Your task to perform on an android device: search for starred emails in the gmail app Image 0: 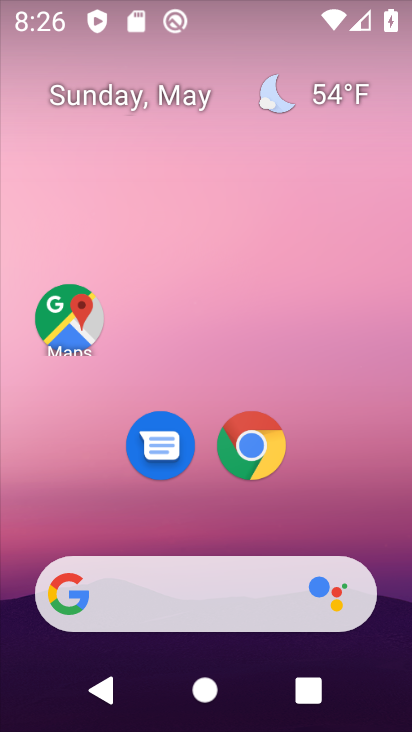
Step 0: drag from (387, 521) to (273, 41)
Your task to perform on an android device: search for starred emails in the gmail app Image 1: 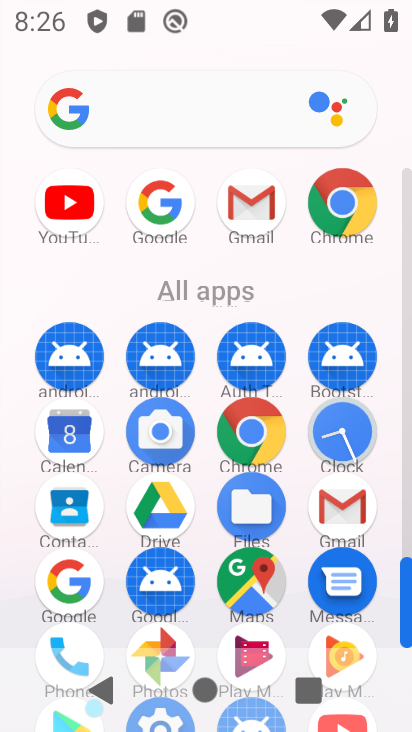
Step 1: click (260, 207)
Your task to perform on an android device: search for starred emails in the gmail app Image 2: 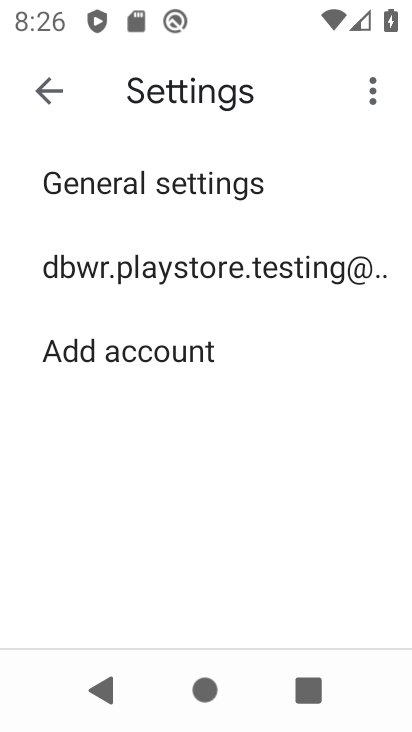
Step 2: click (54, 84)
Your task to perform on an android device: search for starred emails in the gmail app Image 3: 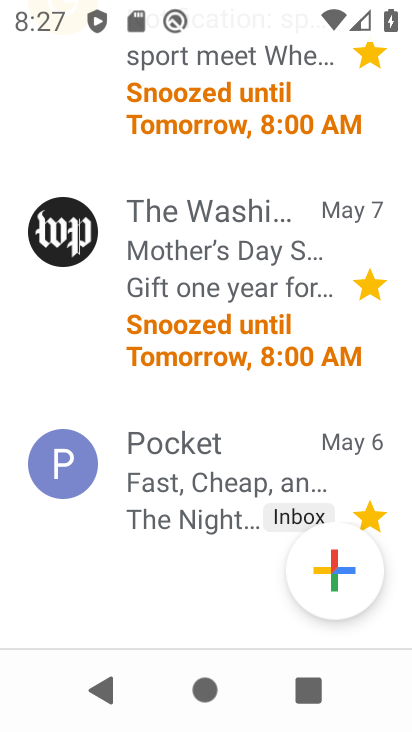
Step 3: drag from (223, 151) to (265, 731)
Your task to perform on an android device: search for starred emails in the gmail app Image 4: 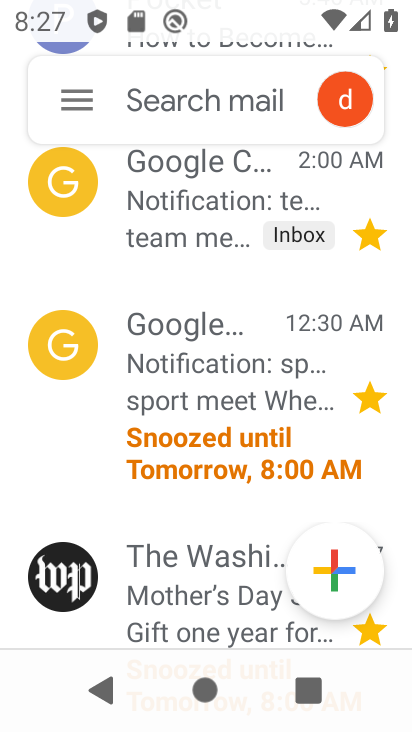
Step 4: click (86, 101)
Your task to perform on an android device: search for starred emails in the gmail app Image 5: 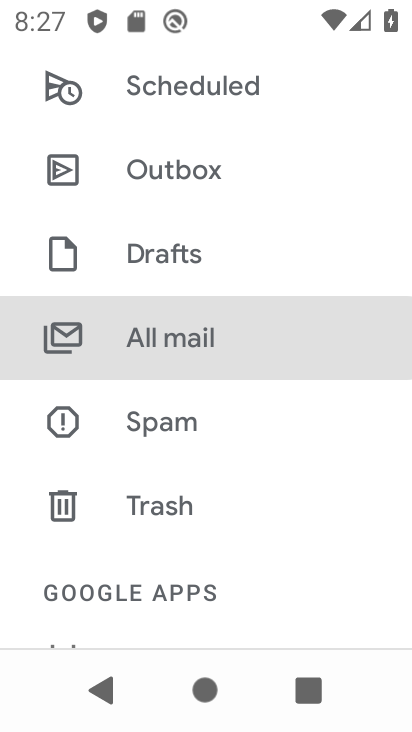
Step 5: drag from (284, 178) to (313, 563)
Your task to perform on an android device: search for starred emails in the gmail app Image 6: 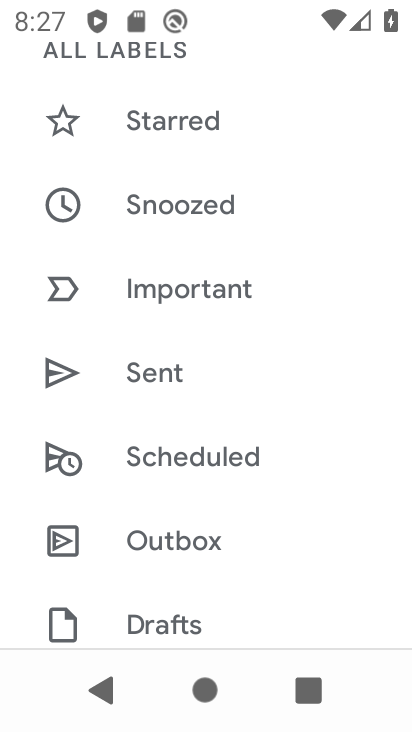
Step 6: click (271, 126)
Your task to perform on an android device: search for starred emails in the gmail app Image 7: 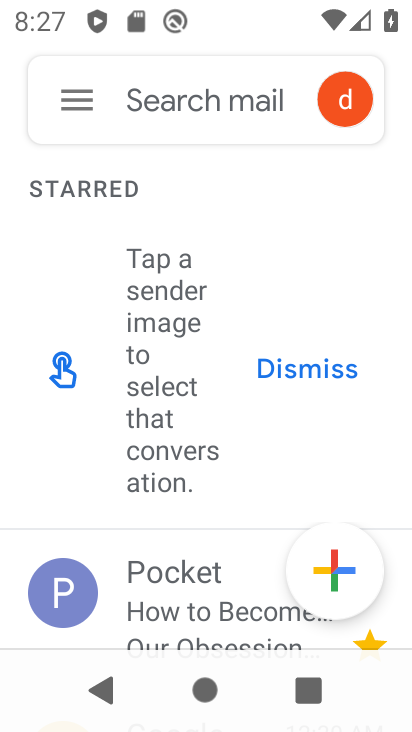
Step 7: task complete